Your task to perform on an android device: allow notifications from all sites in the chrome app Image 0: 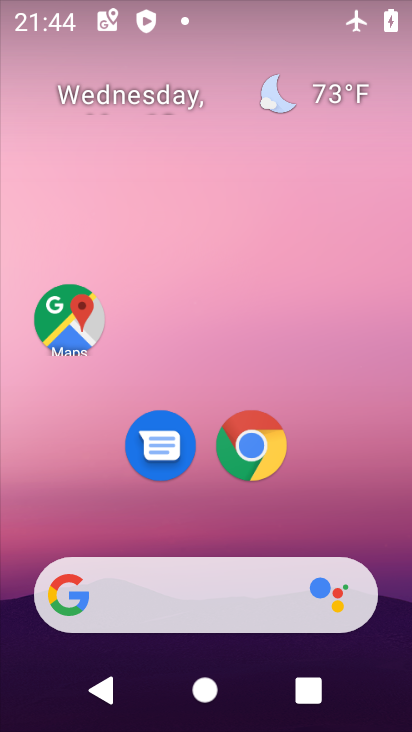
Step 0: drag from (312, 524) to (318, 235)
Your task to perform on an android device: allow notifications from all sites in the chrome app Image 1: 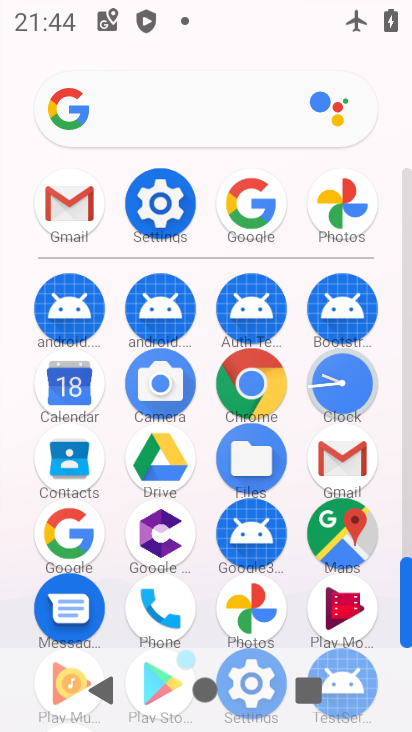
Step 1: click (259, 357)
Your task to perform on an android device: allow notifications from all sites in the chrome app Image 2: 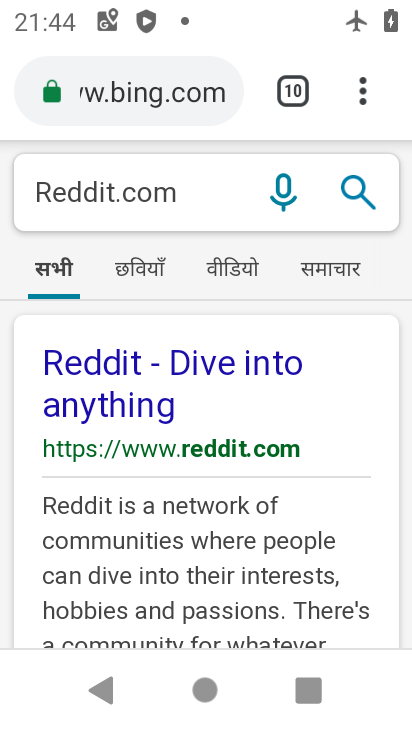
Step 2: click (361, 90)
Your task to perform on an android device: allow notifications from all sites in the chrome app Image 3: 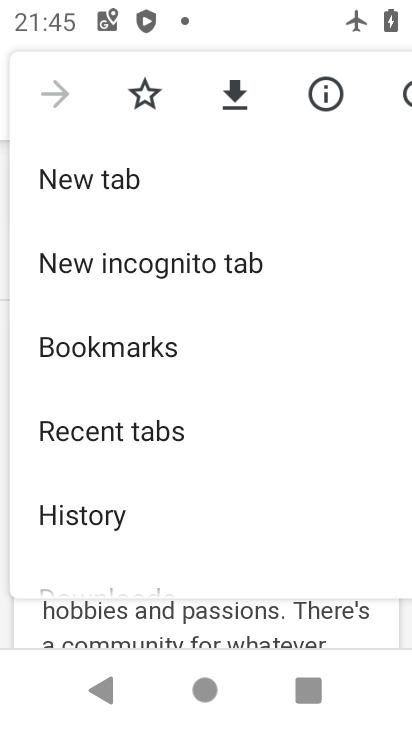
Step 3: drag from (198, 317) to (220, 116)
Your task to perform on an android device: allow notifications from all sites in the chrome app Image 4: 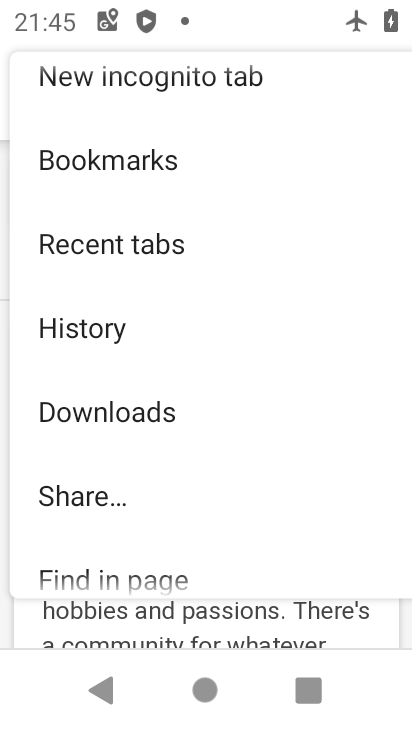
Step 4: drag from (158, 439) to (220, 203)
Your task to perform on an android device: allow notifications from all sites in the chrome app Image 5: 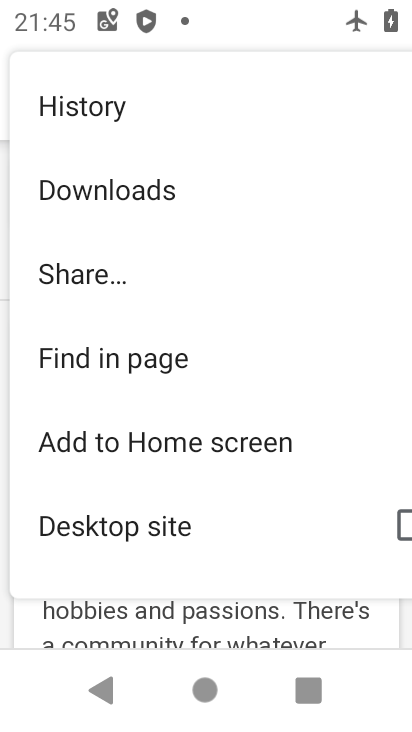
Step 5: drag from (209, 537) to (239, 194)
Your task to perform on an android device: allow notifications from all sites in the chrome app Image 6: 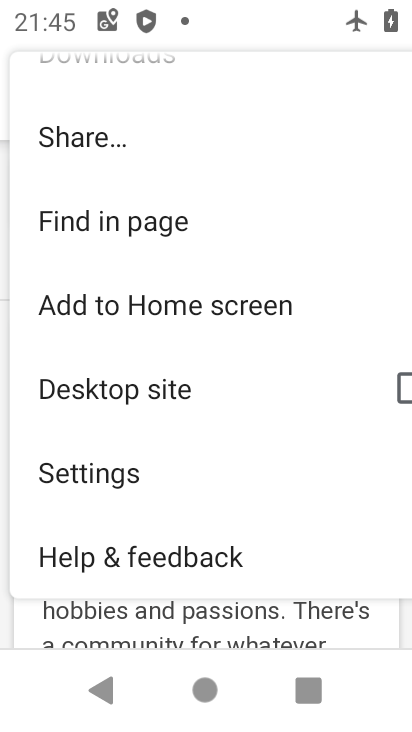
Step 6: click (84, 475)
Your task to perform on an android device: allow notifications from all sites in the chrome app Image 7: 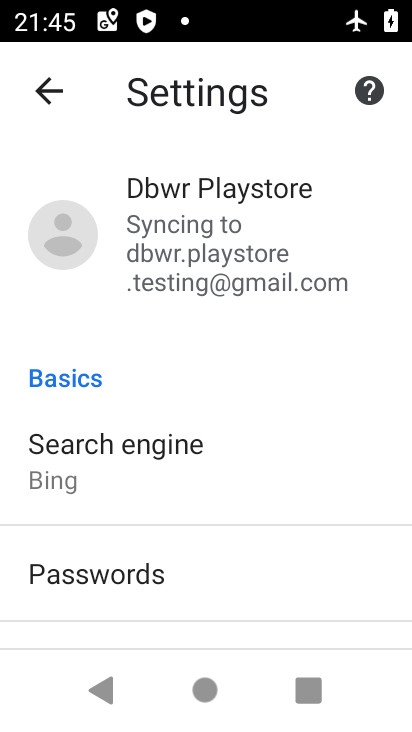
Step 7: drag from (195, 481) to (242, 216)
Your task to perform on an android device: allow notifications from all sites in the chrome app Image 8: 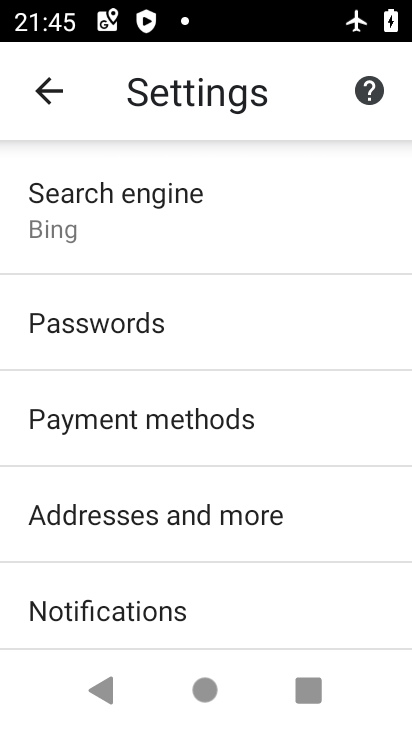
Step 8: drag from (171, 525) to (223, 262)
Your task to perform on an android device: allow notifications from all sites in the chrome app Image 9: 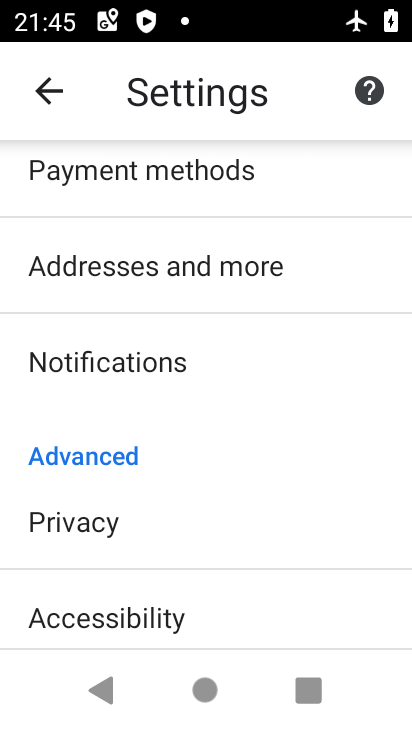
Step 9: drag from (269, 600) to (351, 212)
Your task to perform on an android device: allow notifications from all sites in the chrome app Image 10: 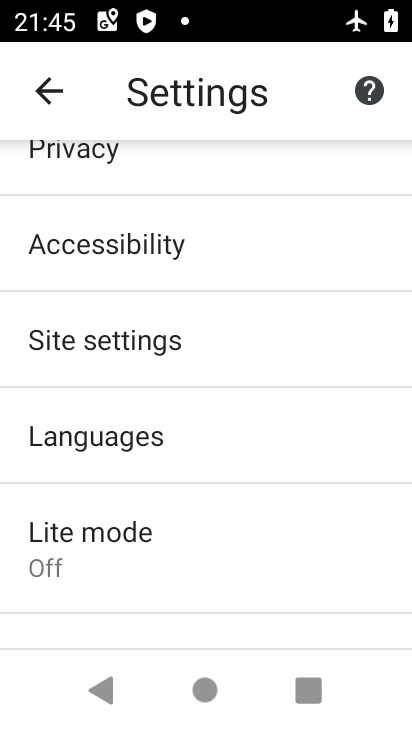
Step 10: click (166, 325)
Your task to perform on an android device: allow notifications from all sites in the chrome app Image 11: 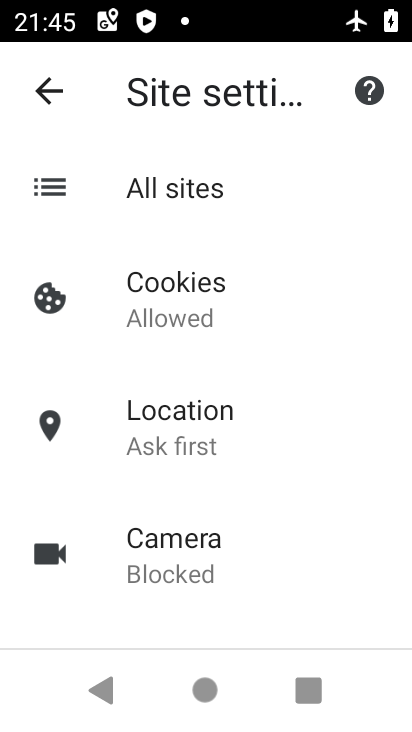
Step 11: task complete